Your task to perform on an android device: Find coffee shops on Maps Image 0: 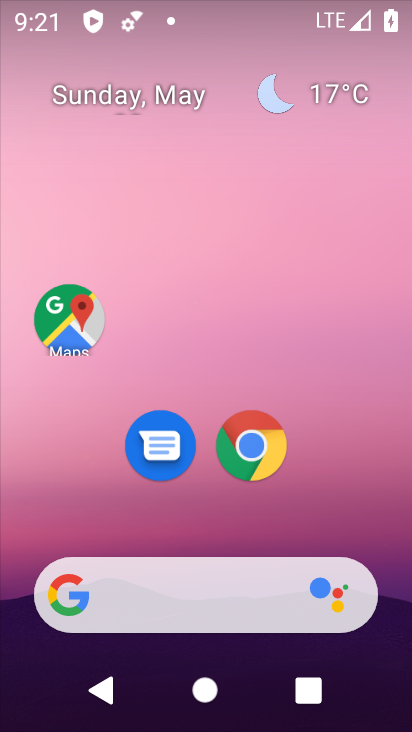
Step 0: drag from (179, 551) to (252, 53)
Your task to perform on an android device: Find coffee shops on Maps Image 1: 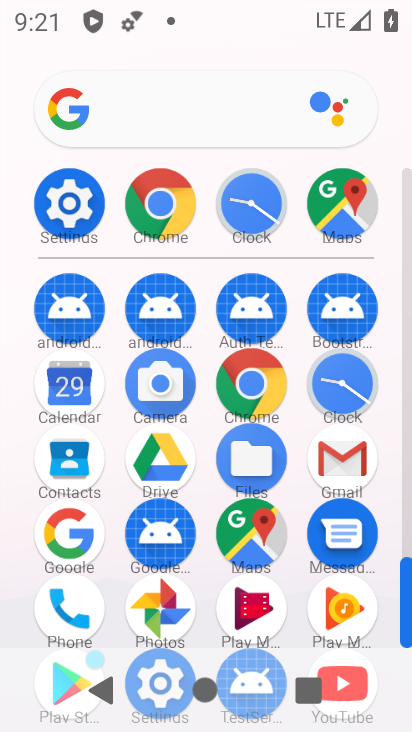
Step 1: click (263, 520)
Your task to perform on an android device: Find coffee shops on Maps Image 2: 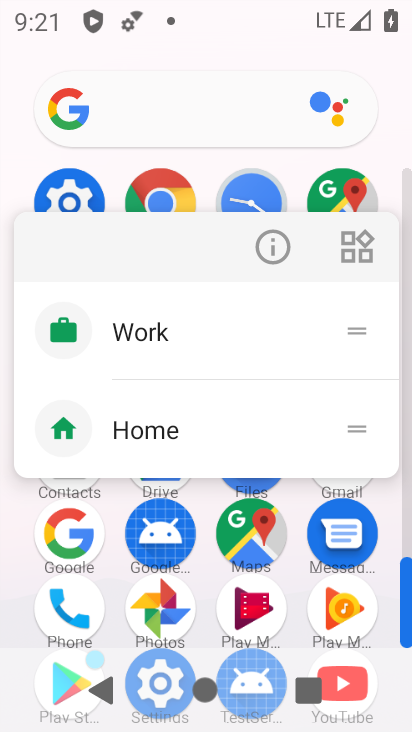
Step 2: click (267, 247)
Your task to perform on an android device: Find coffee shops on Maps Image 3: 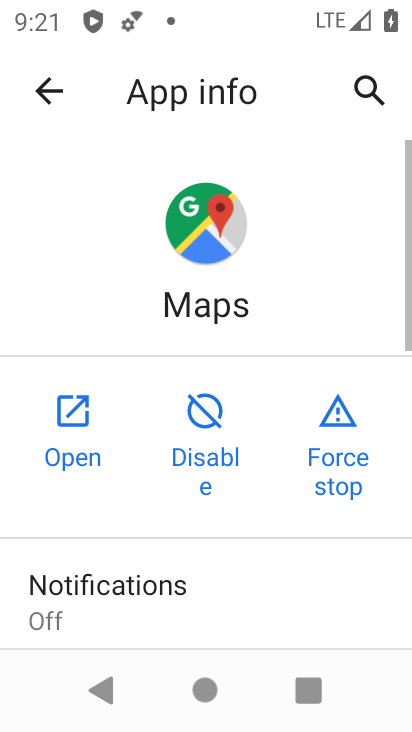
Step 3: click (76, 424)
Your task to perform on an android device: Find coffee shops on Maps Image 4: 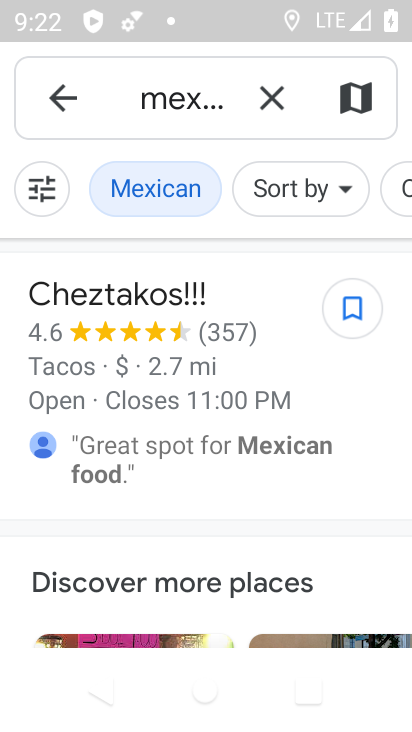
Step 4: drag from (138, 452) to (278, 120)
Your task to perform on an android device: Find coffee shops on Maps Image 5: 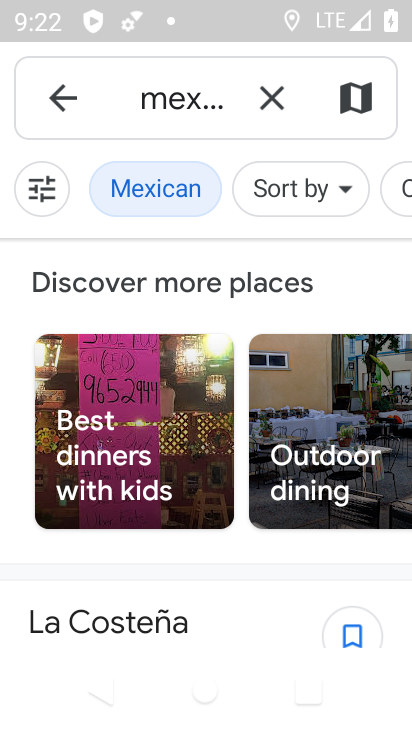
Step 5: drag from (196, 179) to (291, 474)
Your task to perform on an android device: Find coffee shops on Maps Image 6: 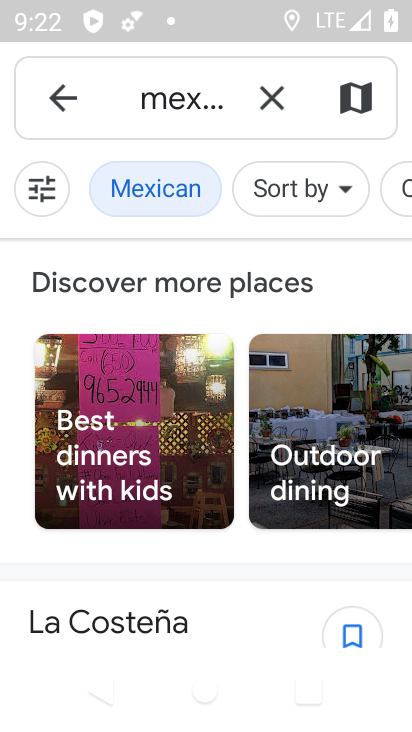
Step 6: click (272, 96)
Your task to perform on an android device: Find coffee shops on Maps Image 7: 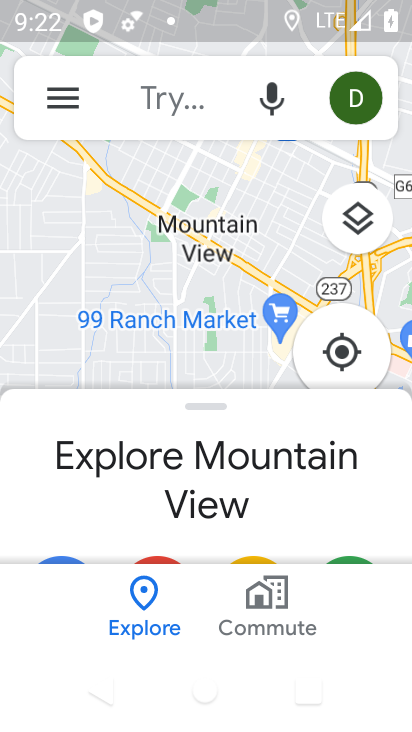
Step 7: click (152, 96)
Your task to perform on an android device: Find coffee shops on Maps Image 8: 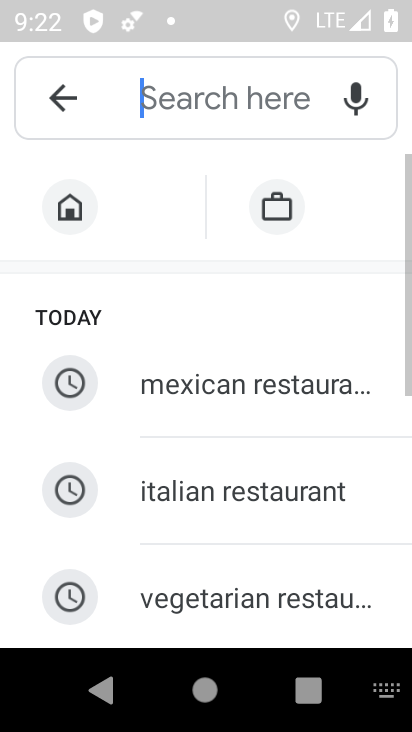
Step 8: drag from (191, 398) to (256, 123)
Your task to perform on an android device: Find coffee shops on Maps Image 9: 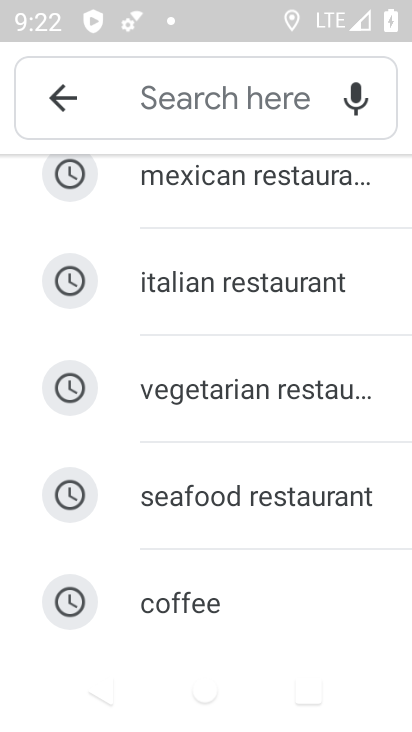
Step 9: click (195, 609)
Your task to perform on an android device: Find coffee shops on Maps Image 10: 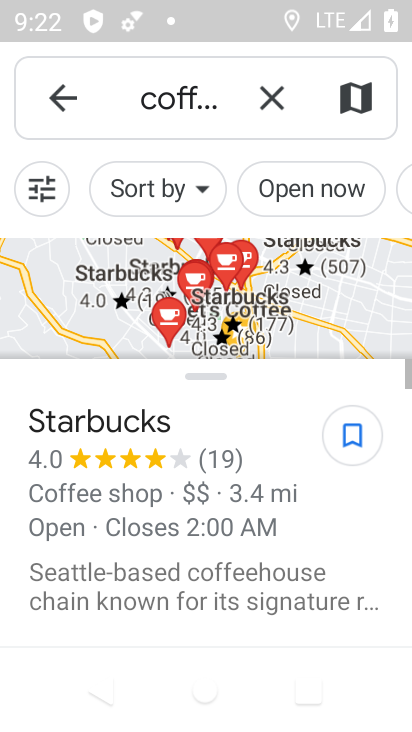
Step 10: task complete